Your task to perform on an android device: move a message to another label in the gmail app Image 0: 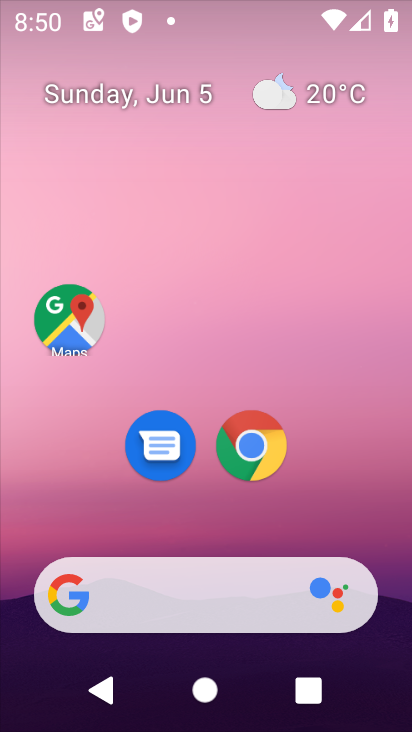
Step 0: drag from (292, 563) to (314, 6)
Your task to perform on an android device: move a message to another label in the gmail app Image 1: 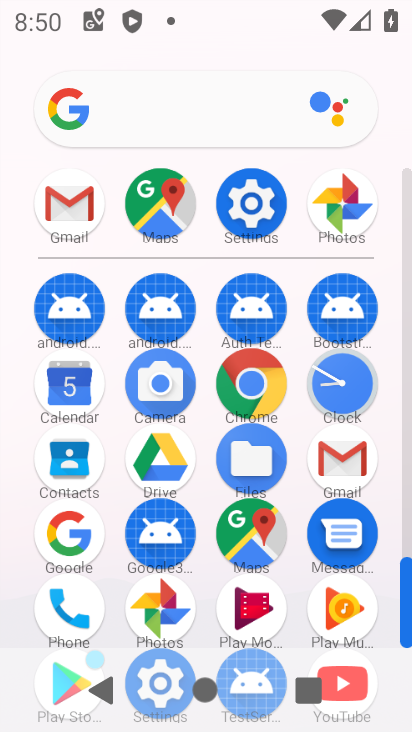
Step 1: click (354, 467)
Your task to perform on an android device: move a message to another label in the gmail app Image 2: 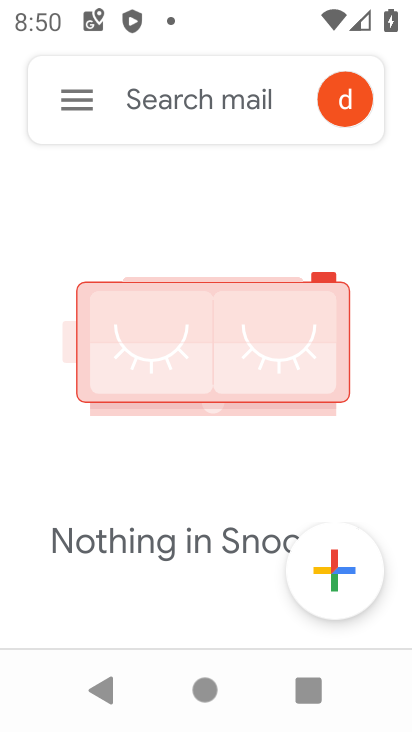
Step 2: click (66, 101)
Your task to perform on an android device: move a message to another label in the gmail app Image 3: 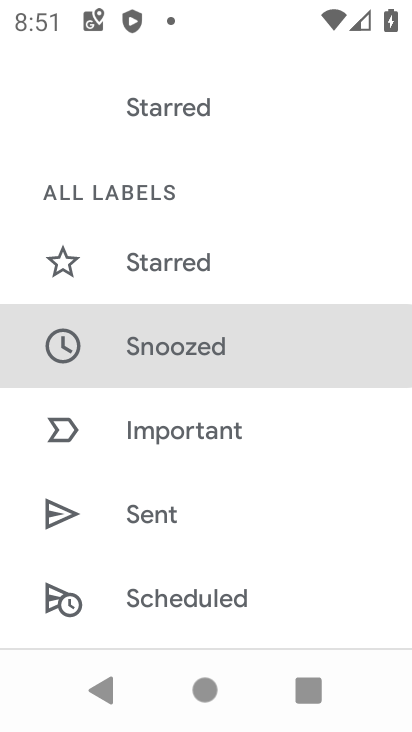
Step 3: task complete